Your task to perform on an android device: Go to Yahoo.com Image 0: 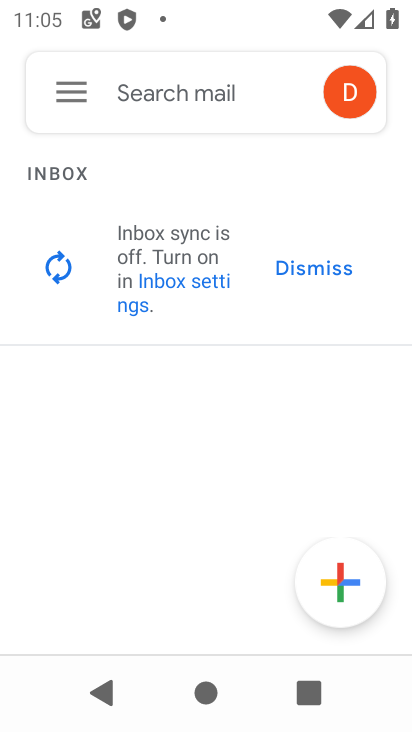
Step 0: press home button
Your task to perform on an android device: Go to Yahoo.com Image 1: 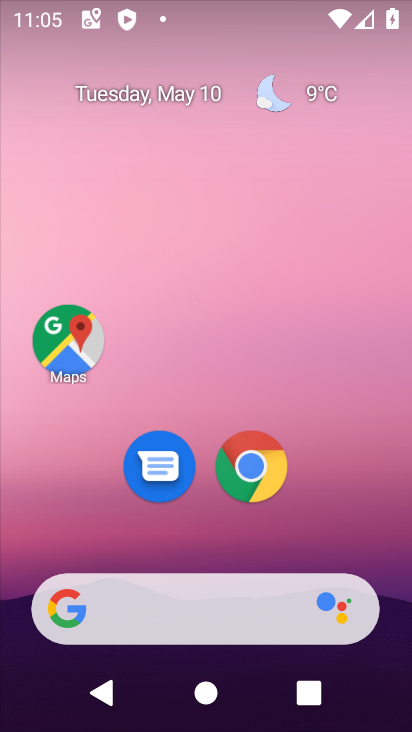
Step 1: click (258, 448)
Your task to perform on an android device: Go to Yahoo.com Image 2: 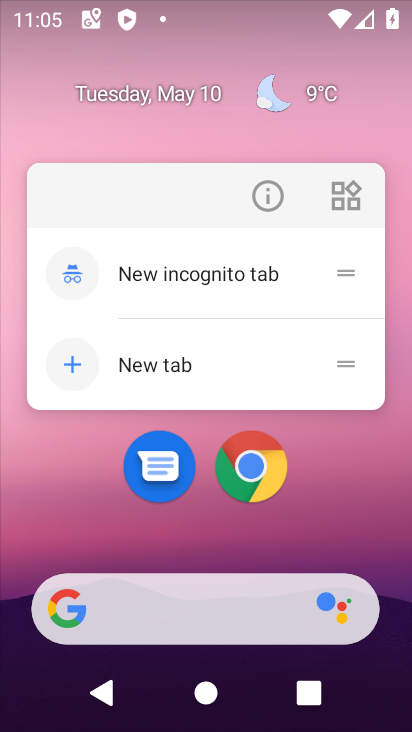
Step 2: click (257, 446)
Your task to perform on an android device: Go to Yahoo.com Image 3: 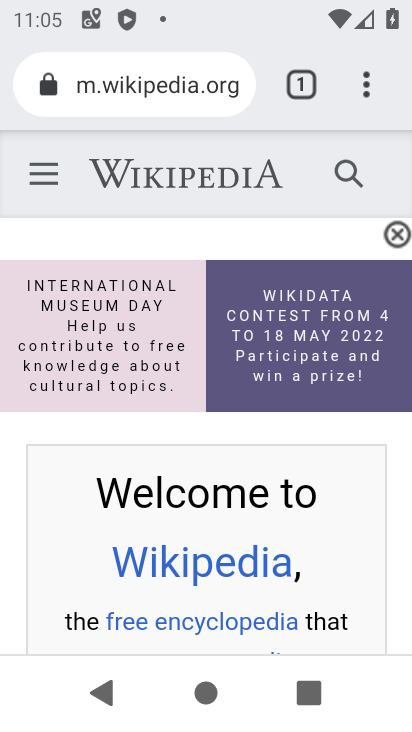
Step 3: click (185, 85)
Your task to perform on an android device: Go to Yahoo.com Image 4: 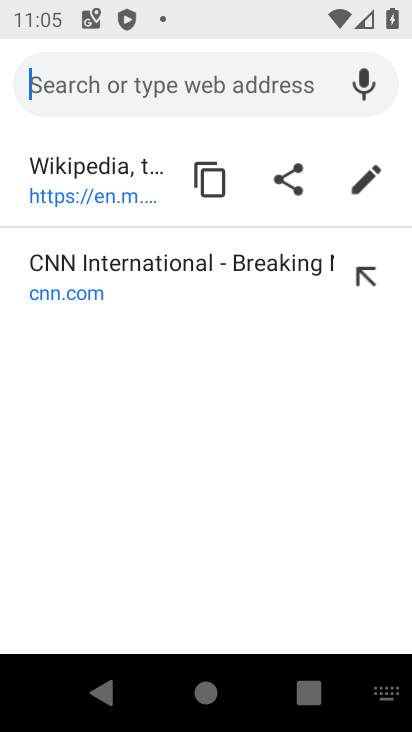
Step 4: type "yahoo.com"
Your task to perform on an android device: Go to Yahoo.com Image 5: 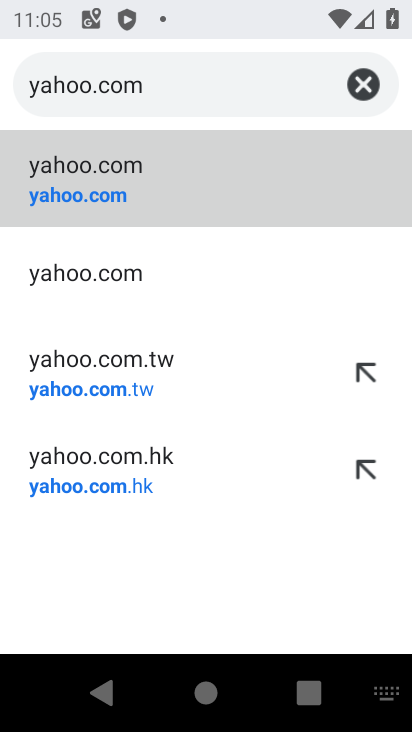
Step 5: click (98, 188)
Your task to perform on an android device: Go to Yahoo.com Image 6: 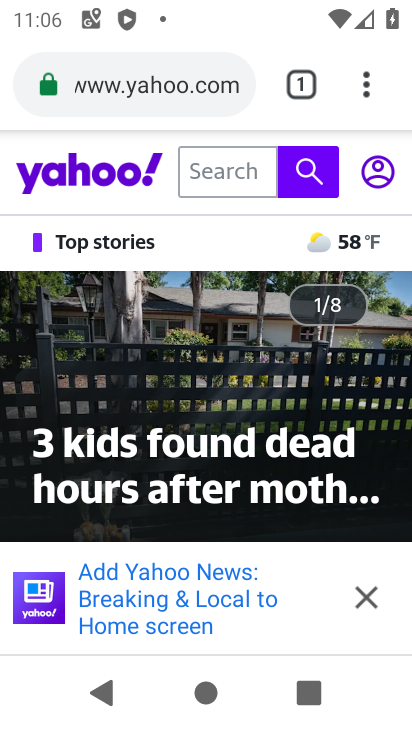
Step 6: task complete